Your task to perform on an android device: Open CNN.com Image 0: 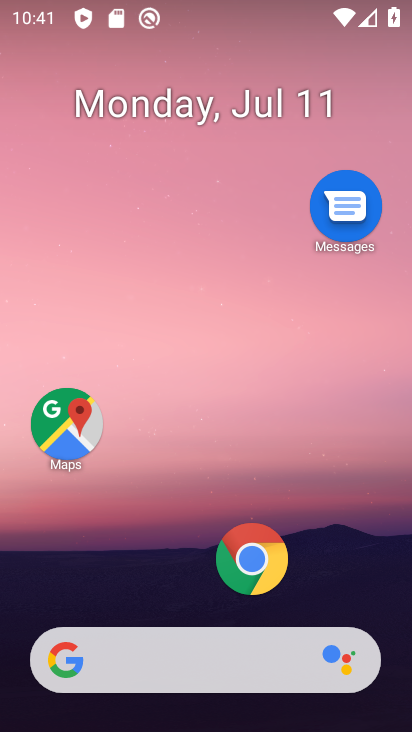
Step 0: drag from (380, 573) to (399, 297)
Your task to perform on an android device: Open CNN.com Image 1: 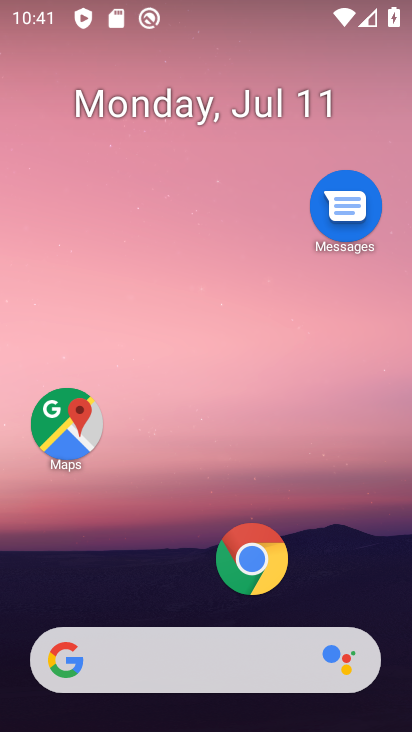
Step 1: drag from (332, 537) to (379, 5)
Your task to perform on an android device: Open CNN.com Image 2: 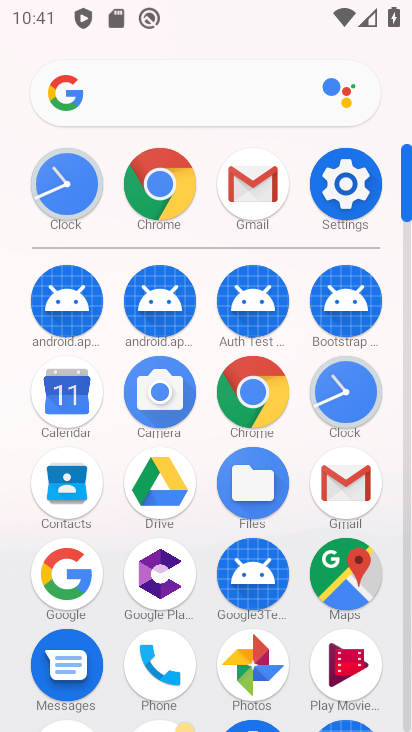
Step 2: click (255, 381)
Your task to perform on an android device: Open CNN.com Image 3: 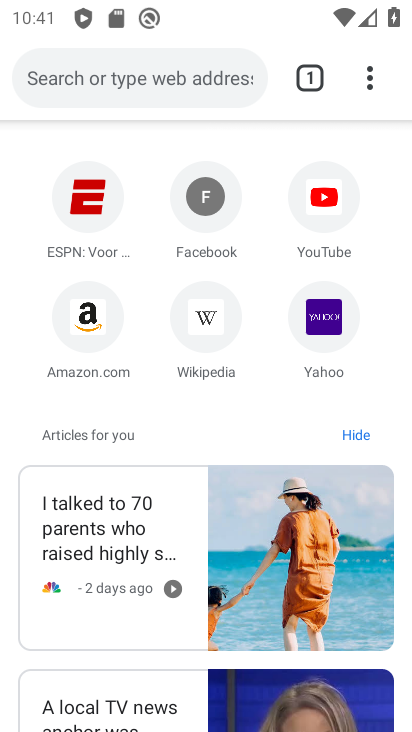
Step 3: click (197, 85)
Your task to perform on an android device: Open CNN.com Image 4: 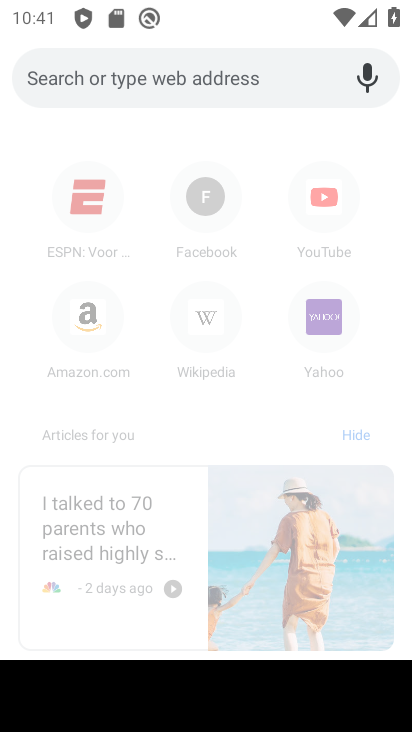
Step 4: type "cnn,com"
Your task to perform on an android device: Open CNN.com Image 5: 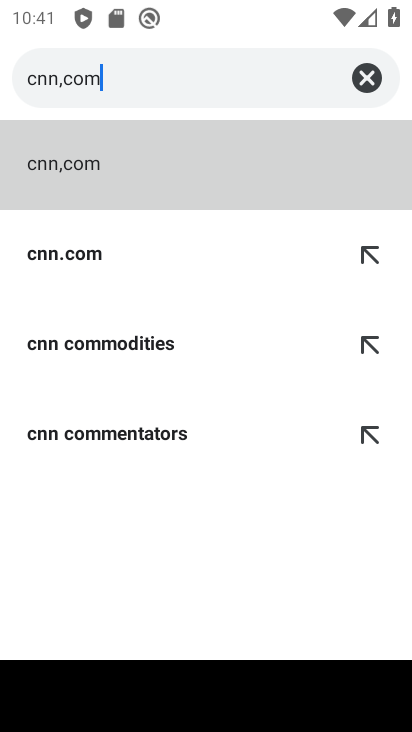
Step 5: click (129, 181)
Your task to perform on an android device: Open CNN.com Image 6: 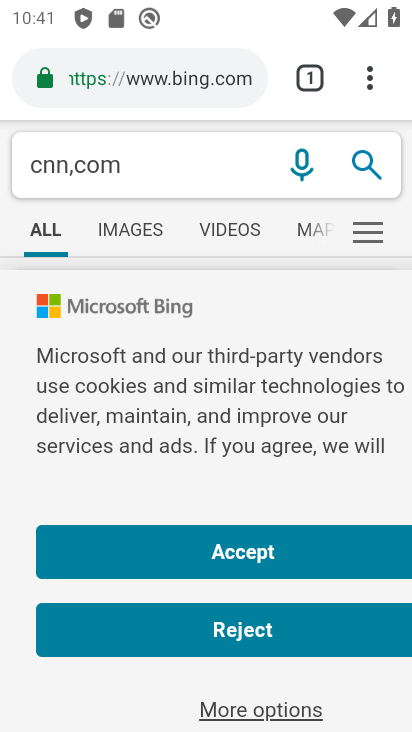
Step 6: task complete